Your task to perform on an android device: Open eBay Image 0: 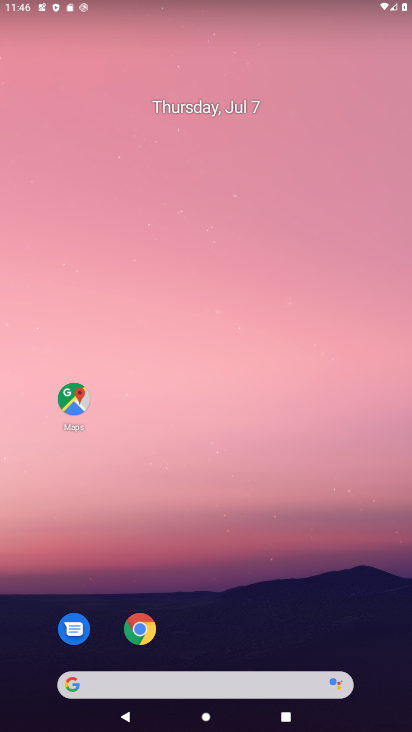
Step 0: click (140, 626)
Your task to perform on an android device: Open eBay Image 1: 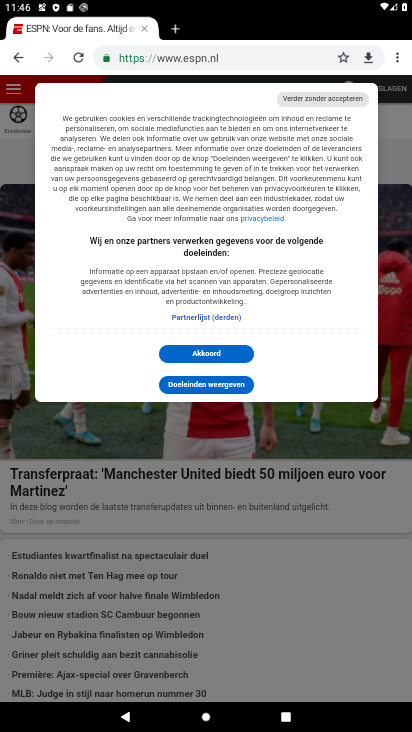
Step 1: click (241, 57)
Your task to perform on an android device: Open eBay Image 2: 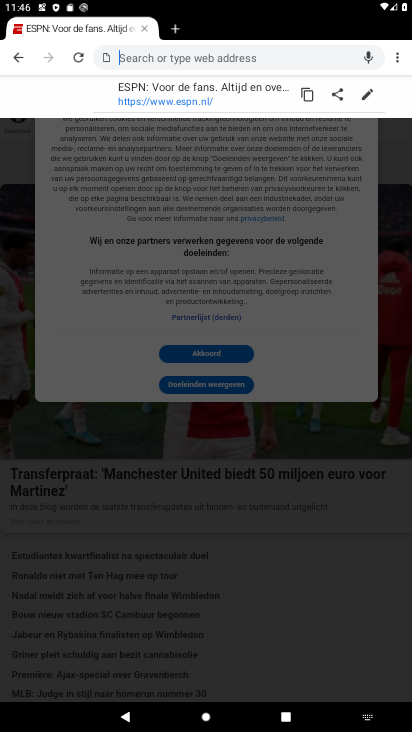
Step 2: type "eBay"
Your task to perform on an android device: Open eBay Image 3: 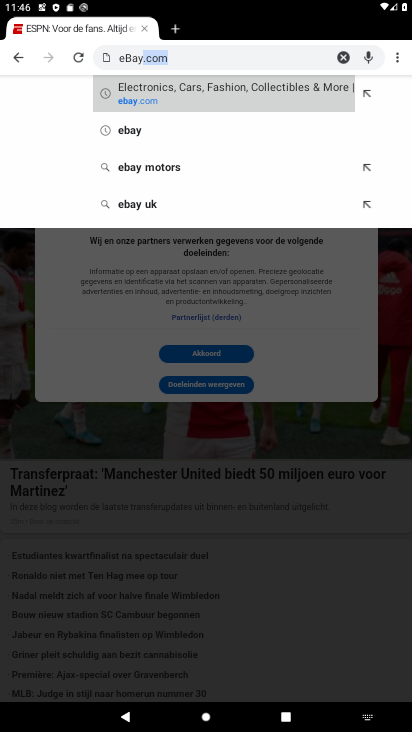
Step 3: click (145, 90)
Your task to perform on an android device: Open eBay Image 4: 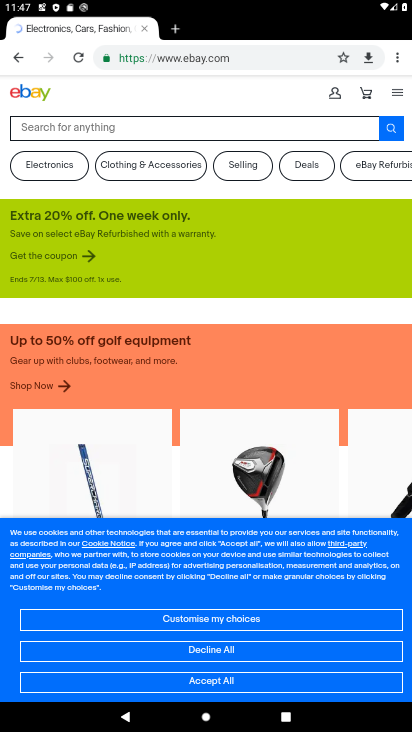
Step 4: task complete